Your task to perform on an android device: toggle airplane mode Image 0: 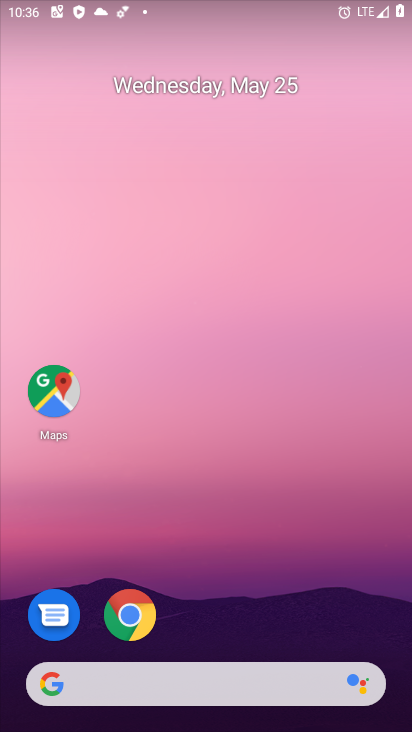
Step 0: drag from (231, 528) to (289, 0)
Your task to perform on an android device: toggle airplane mode Image 1: 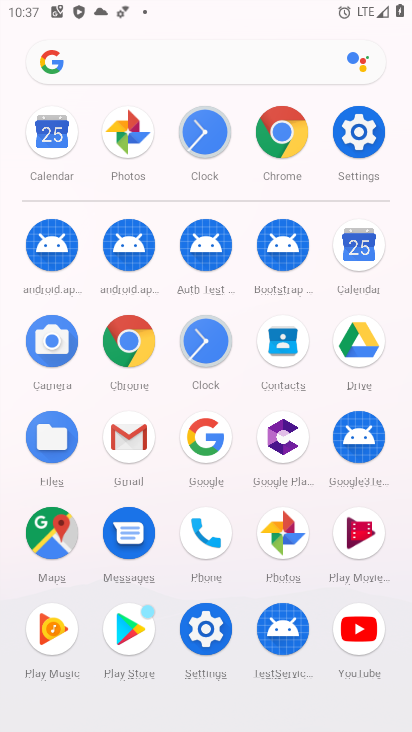
Step 1: click (365, 128)
Your task to perform on an android device: toggle airplane mode Image 2: 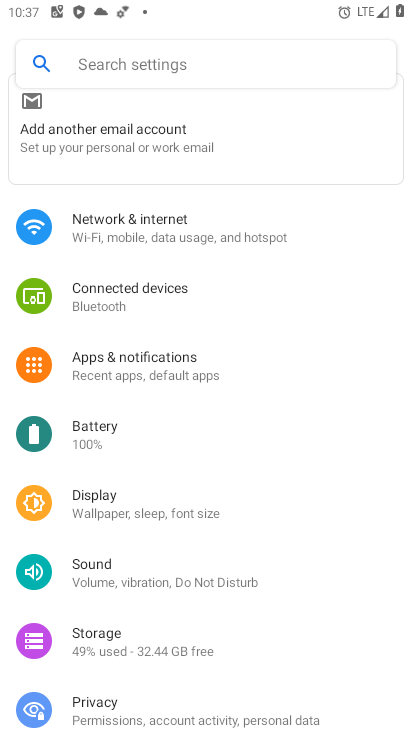
Step 2: click (230, 246)
Your task to perform on an android device: toggle airplane mode Image 3: 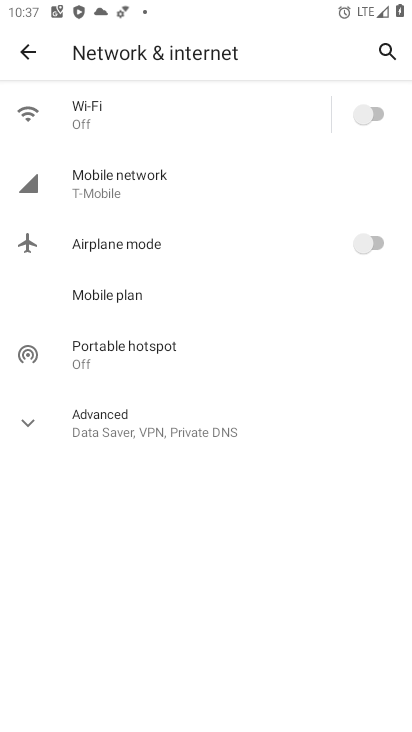
Step 3: click (368, 236)
Your task to perform on an android device: toggle airplane mode Image 4: 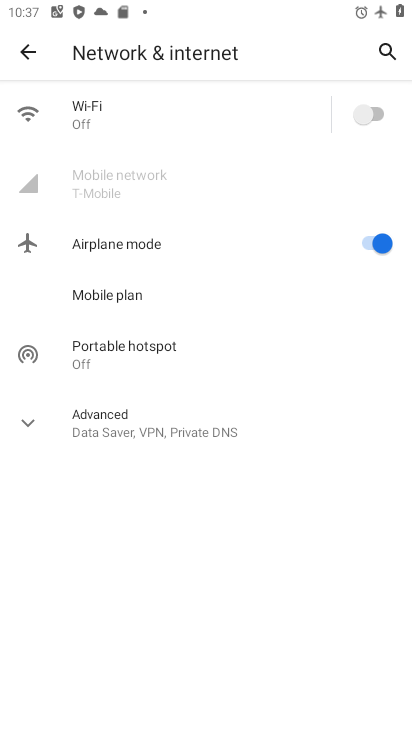
Step 4: task complete